Your task to perform on an android device: Show the shopping cart on walmart. Add "razer kraken" to the cart on walmart, then select checkout. Image 0: 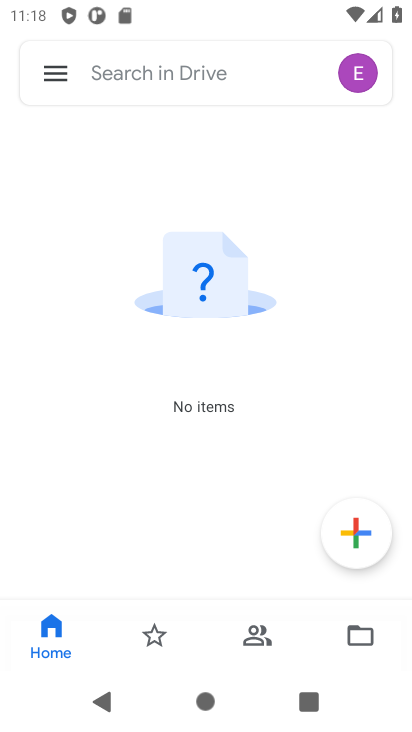
Step 0: press home button
Your task to perform on an android device: Show the shopping cart on walmart. Add "razer kraken" to the cart on walmart, then select checkout. Image 1: 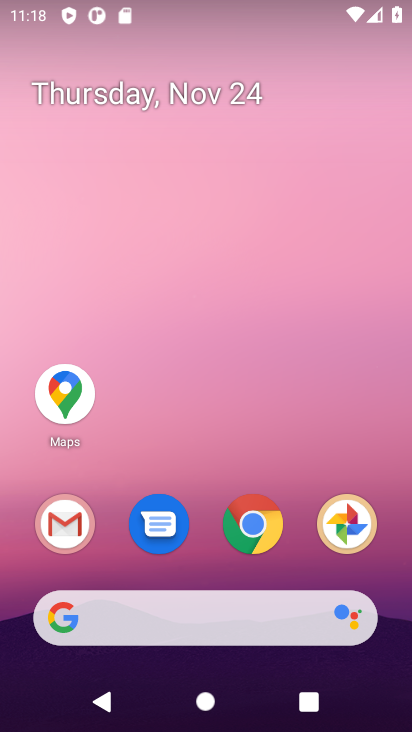
Step 1: click (253, 526)
Your task to perform on an android device: Show the shopping cart on walmart. Add "razer kraken" to the cart on walmart, then select checkout. Image 2: 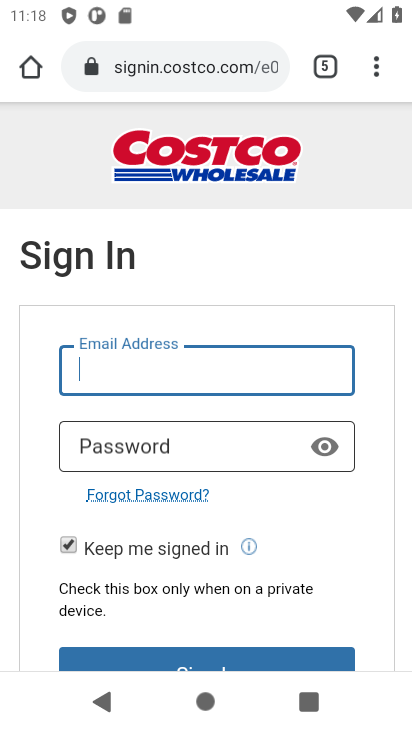
Step 2: click (165, 62)
Your task to perform on an android device: Show the shopping cart on walmart. Add "razer kraken" to the cart on walmart, then select checkout. Image 3: 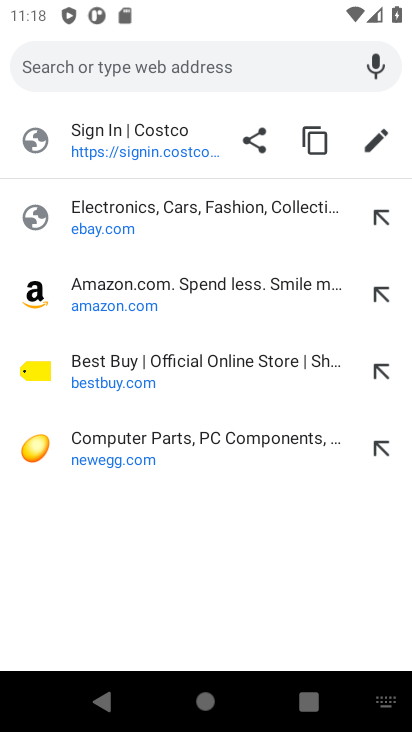
Step 3: type "walmart.com"
Your task to perform on an android device: Show the shopping cart on walmart. Add "razer kraken" to the cart on walmart, then select checkout. Image 4: 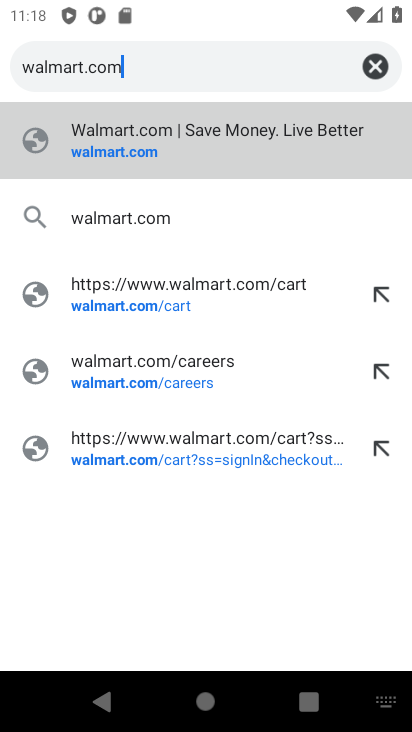
Step 4: click (122, 154)
Your task to perform on an android device: Show the shopping cart on walmart. Add "razer kraken" to the cart on walmart, then select checkout. Image 5: 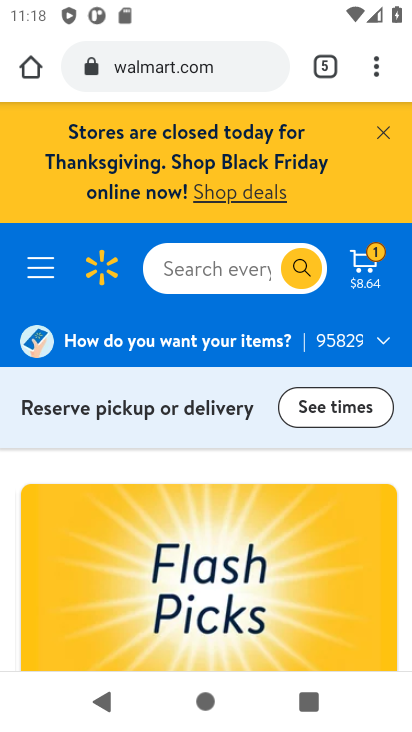
Step 5: click (362, 267)
Your task to perform on an android device: Show the shopping cart on walmart. Add "razer kraken" to the cart on walmart, then select checkout. Image 6: 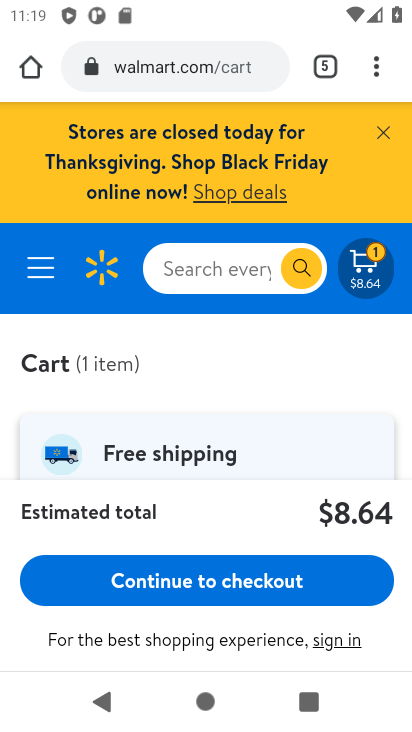
Step 6: drag from (248, 370) to (260, 233)
Your task to perform on an android device: Show the shopping cart on walmart. Add "razer kraken" to the cart on walmart, then select checkout. Image 7: 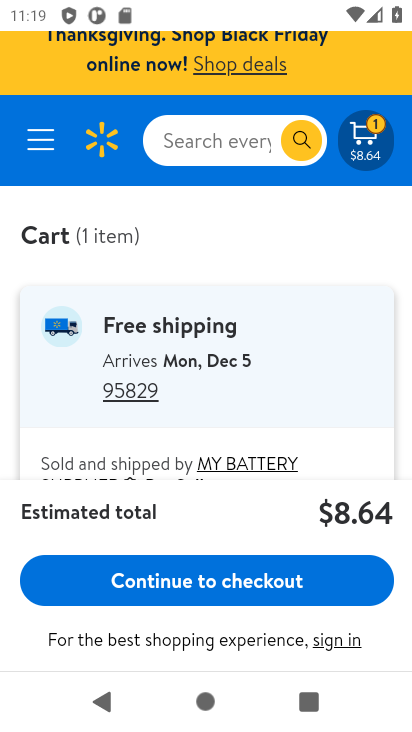
Step 7: drag from (215, 402) to (236, 242)
Your task to perform on an android device: Show the shopping cart on walmart. Add "razer kraken" to the cart on walmart, then select checkout. Image 8: 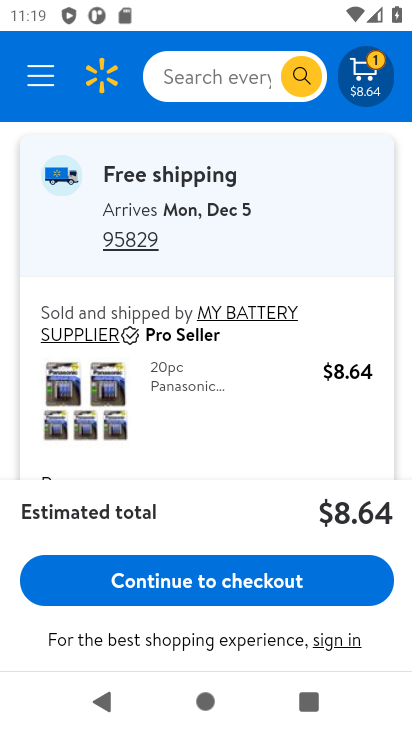
Step 8: click (201, 89)
Your task to perform on an android device: Show the shopping cart on walmart. Add "razer kraken" to the cart on walmart, then select checkout. Image 9: 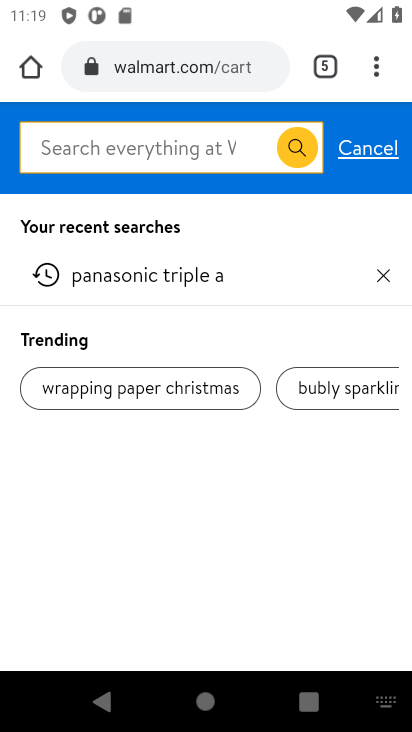
Step 9: type "razer kraken"
Your task to perform on an android device: Show the shopping cart on walmart. Add "razer kraken" to the cart on walmart, then select checkout. Image 10: 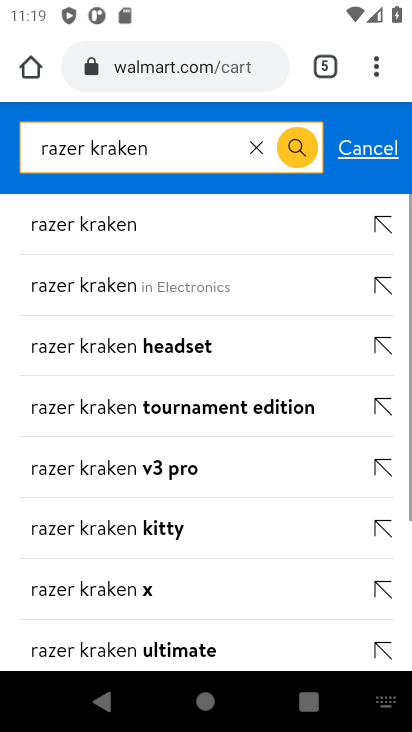
Step 10: click (67, 227)
Your task to perform on an android device: Show the shopping cart on walmart. Add "razer kraken" to the cart on walmart, then select checkout. Image 11: 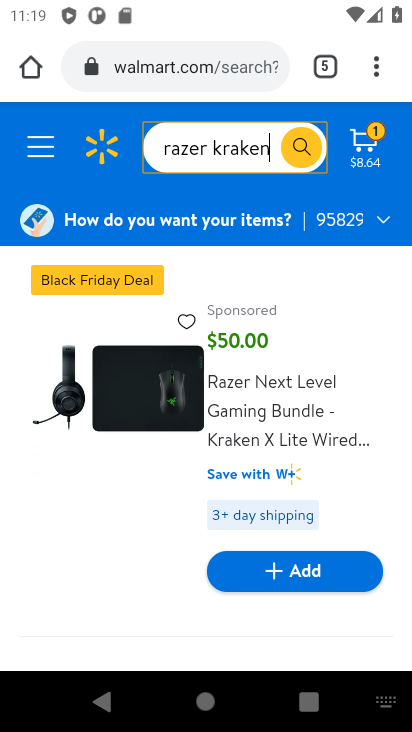
Step 11: drag from (124, 469) to (149, 218)
Your task to perform on an android device: Show the shopping cart on walmart. Add "razer kraken" to the cart on walmart, then select checkout. Image 12: 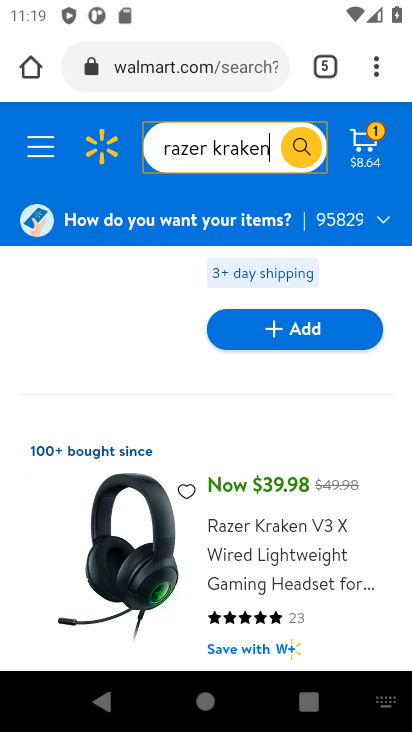
Step 12: drag from (85, 463) to (124, 267)
Your task to perform on an android device: Show the shopping cart on walmart. Add "razer kraken" to the cart on walmart, then select checkout. Image 13: 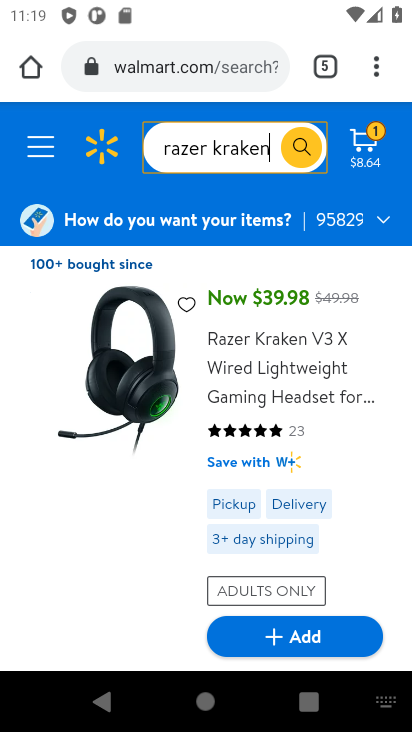
Step 13: click (317, 639)
Your task to perform on an android device: Show the shopping cart on walmart. Add "razer kraken" to the cart on walmart, then select checkout. Image 14: 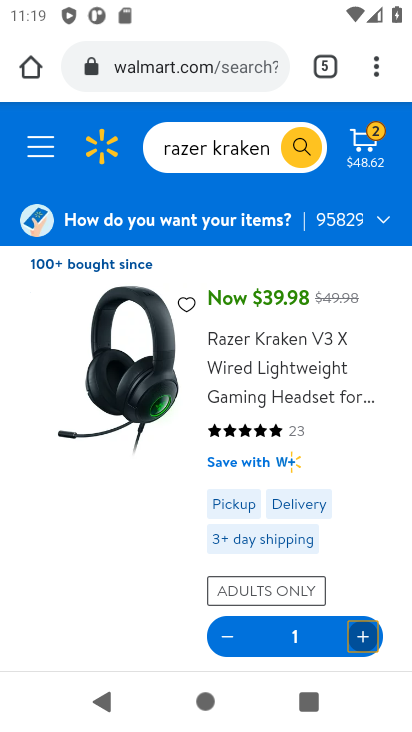
Step 14: click (374, 146)
Your task to perform on an android device: Show the shopping cart on walmart. Add "razer kraken" to the cart on walmart, then select checkout. Image 15: 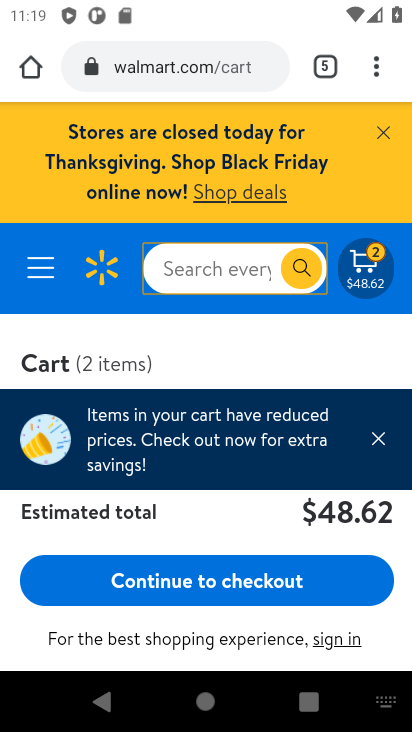
Step 15: click (199, 576)
Your task to perform on an android device: Show the shopping cart on walmart. Add "razer kraken" to the cart on walmart, then select checkout. Image 16: 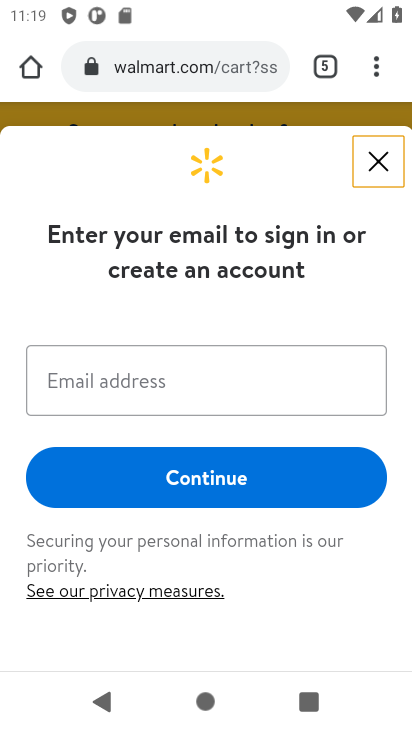
Step 16: task complete